Your task to perform on an android device: turn off notifications in google photos Image 0: 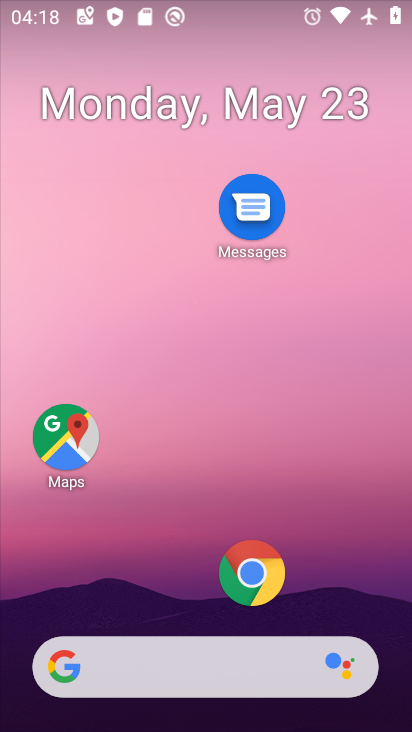
Step 0: drag from (373, 660) to (392, 4)
Your task to perform on an android device: turn off notifications in google photos Image 1: 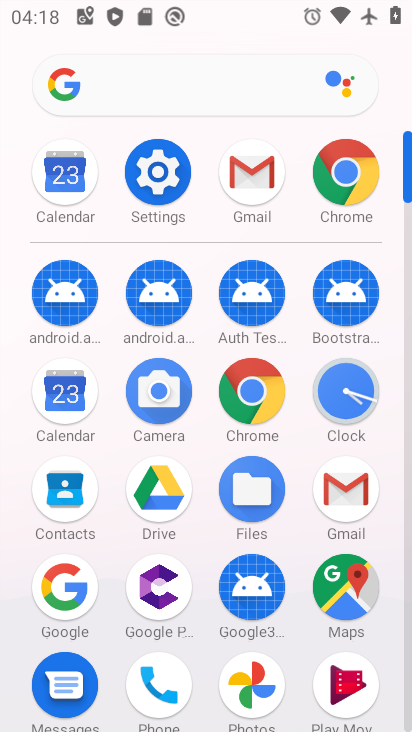
Step 1: click (253, 664)
Your task to perform on an android device: turn off notifications in google photos Image 2: 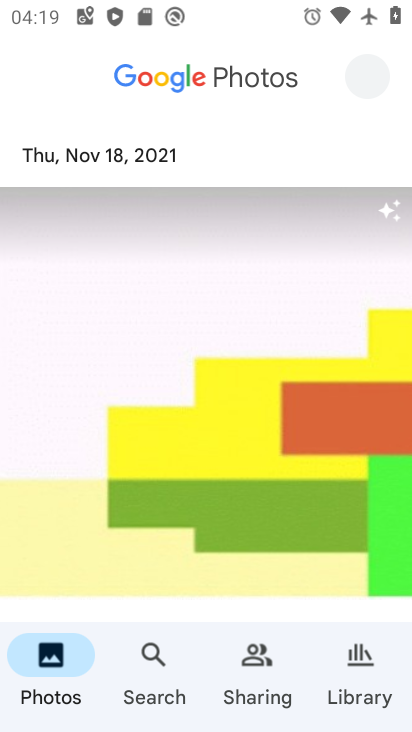
Step 2: click (358, 673)
Your task to perform on an android device: turn off notifications in google photos Image 3: 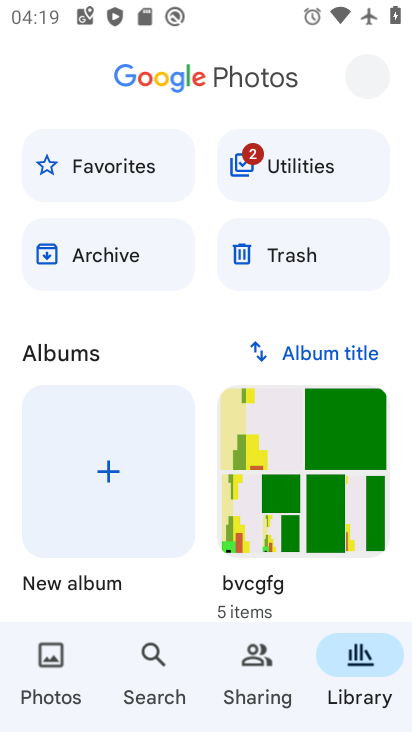
Step 3: press back button
Your task to perform on an android device: turn off notifications in google photos Image 4: 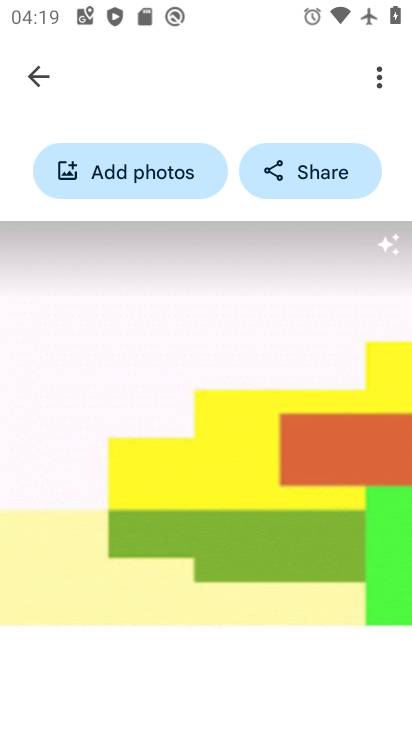
Step 4: press back button
Your task to perform on an android device: turn off notifications in google photos Image 5: 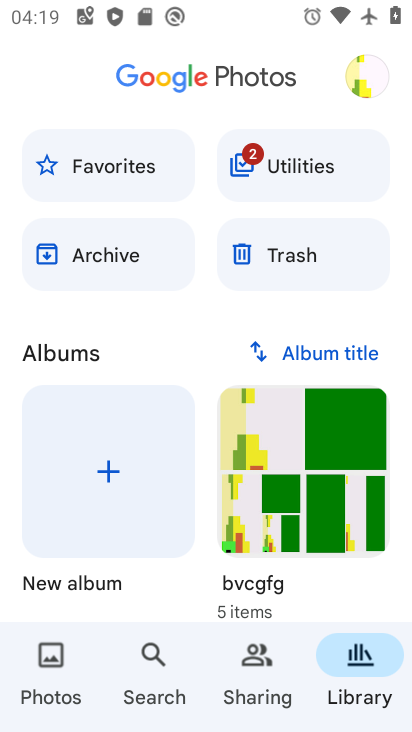
Step 5: click (383, 656)
Your task to perform on an android device: turn off notifications in google photos Image 6: 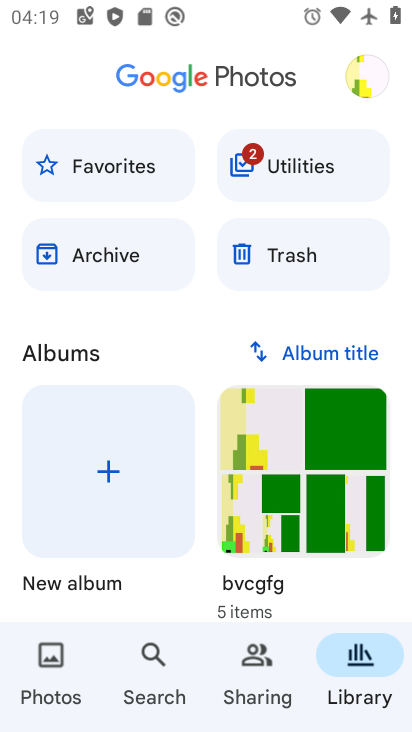
Step 6: click (249, 674)
Your task to perform on an android device: turn off notifications in google photos Image 7: 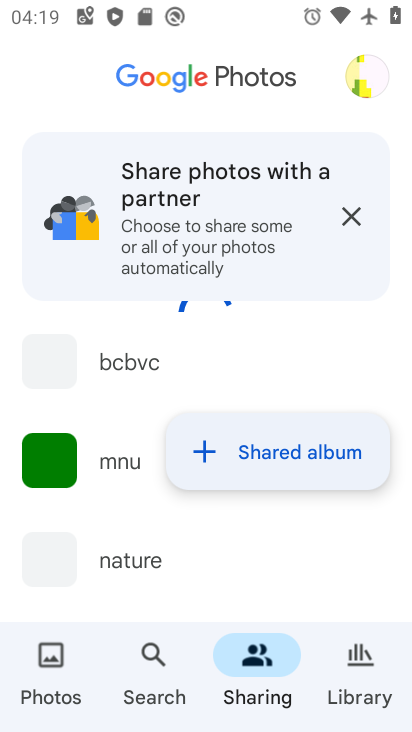
Step 7: click (368, 83)
Your task to perform on an android device: turn off notifications in google photos Image 8: 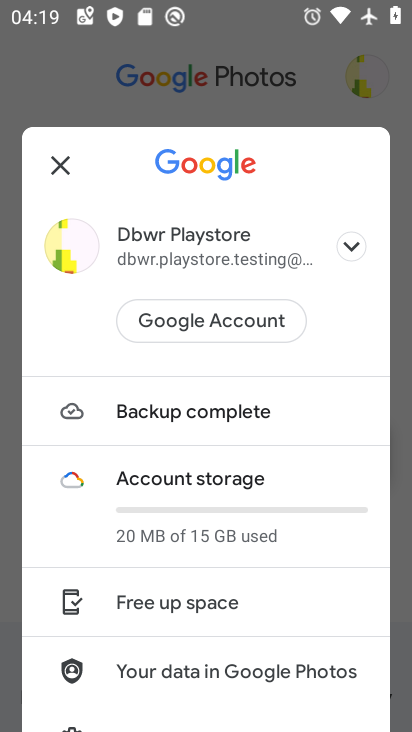
Step 8: drag from (207, 626) to (282, 65)
Your task to perform on an android device: turn off notifications in google photos Image 9: 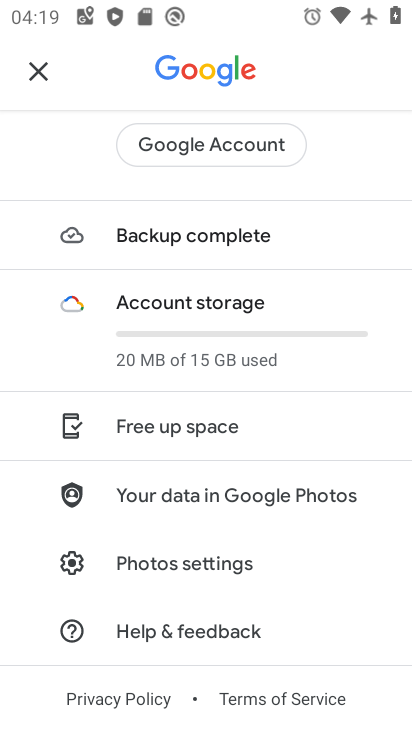
Step 9: click (219, 574)
Your task to perform on an android device: turn off notifications in google photos Image 10: 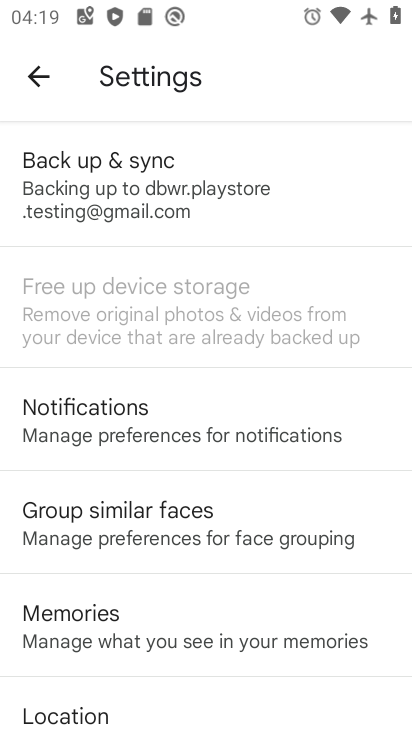
Step 10: click (196, 439)
Your task to perform on an android device: turn off notifications in google photos Image 11: 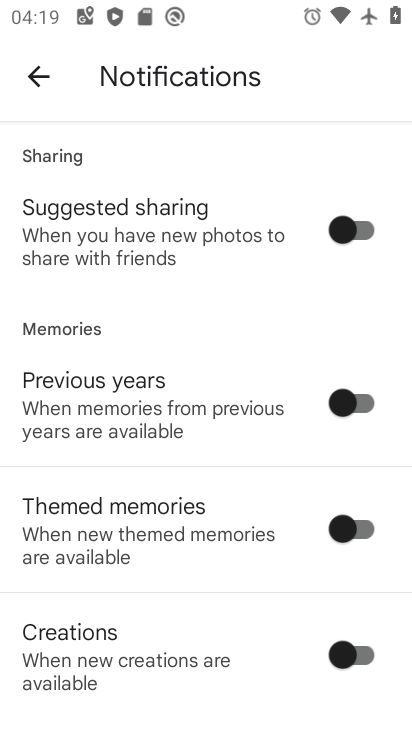
Step 11: drag from (218, 666) to (249, 145)
Your task to perform on an android device: turn off notifications in google photos Image 12: 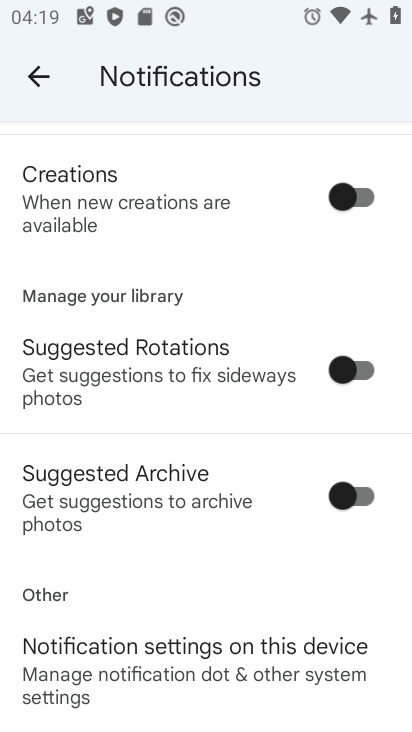
Step 12: click (214, 683)
Your task to perform on an android device: turn off notifications in google photos Image 13: 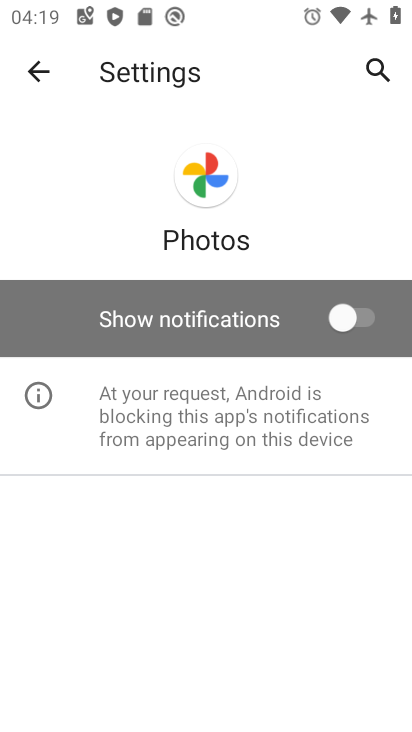
Step 13: task complete